Your task to perform on an android device: stop showing notifications on the lock screen Image 0: 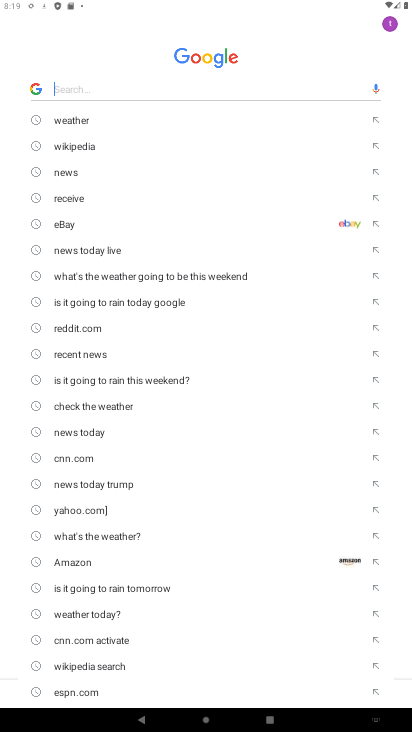
Step 0: press home button
Your task to perform on an android device: stop showing notifications on the lock screen Image 1: 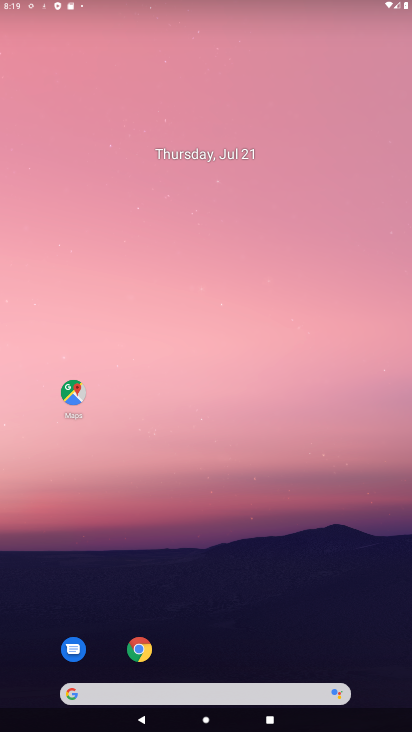
Step 1: drag from (205, 650) to (242, 114)
Your task to perform on an android device: stop showing notifications on the lock screen Image 2: 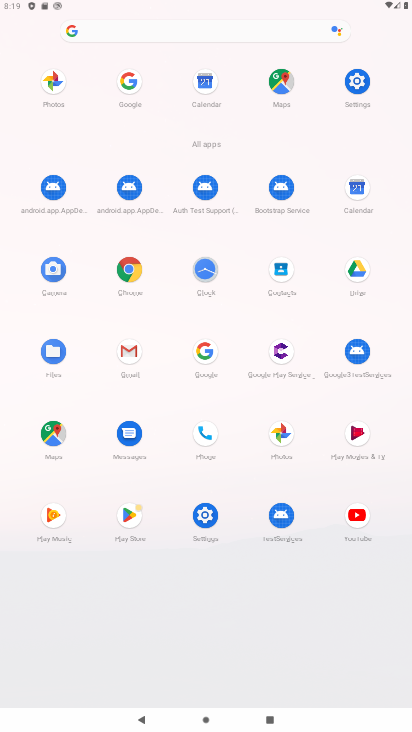
Step 2: click (357, 76)
Your task to perform on an android device: stop showing notifications on the lock screen Image 3: 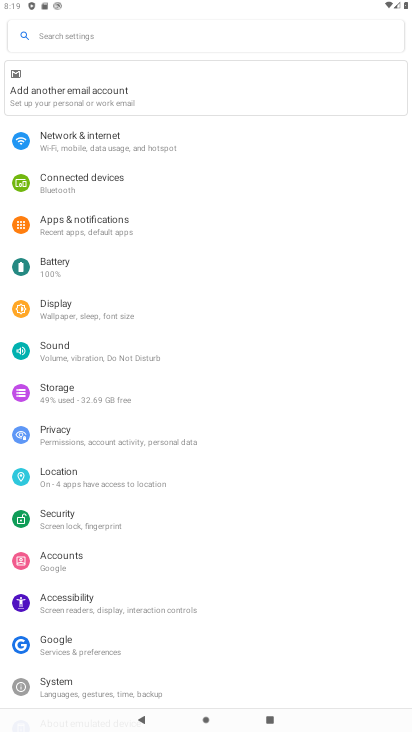
Step 3: click (90, 218)
Your task to perform on an android device: stop showing notifications on the lock screen Image 4: 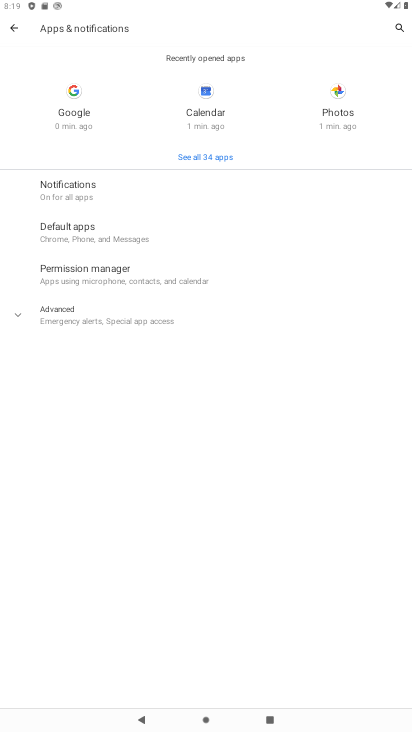
Step 4: click (82, 182)
Your task to perform on an android device: stop showing notifications on the lock screen Image 5: 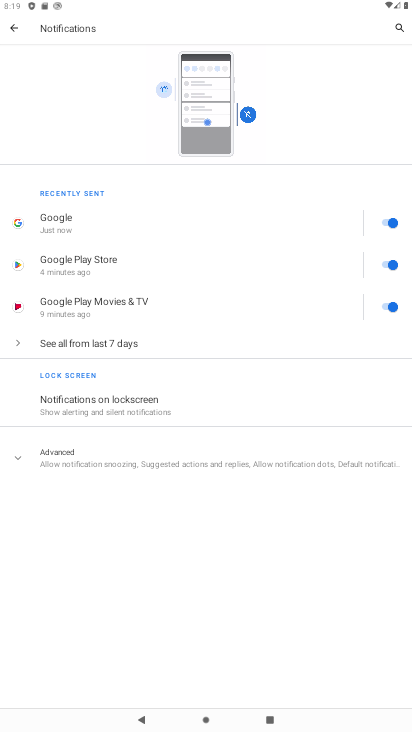
Step 5: click (119, 406)
Your task to perform on an android device: stop showing notifications on the lock screen Image 6: 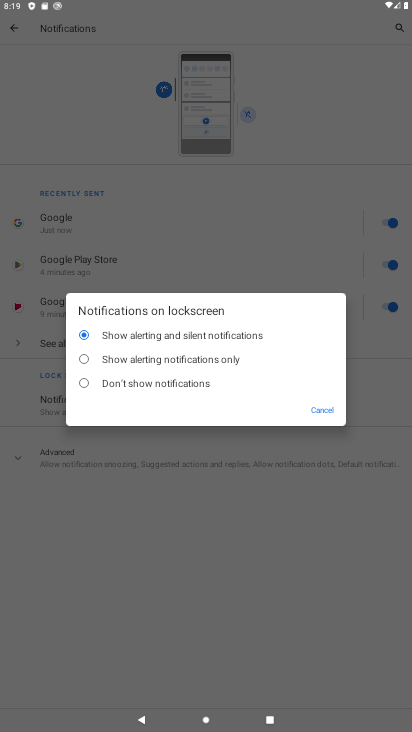
Step 6: click (75, 384)
Your task to perform on an android device: stop showing notifications on the lock screen Image 7: 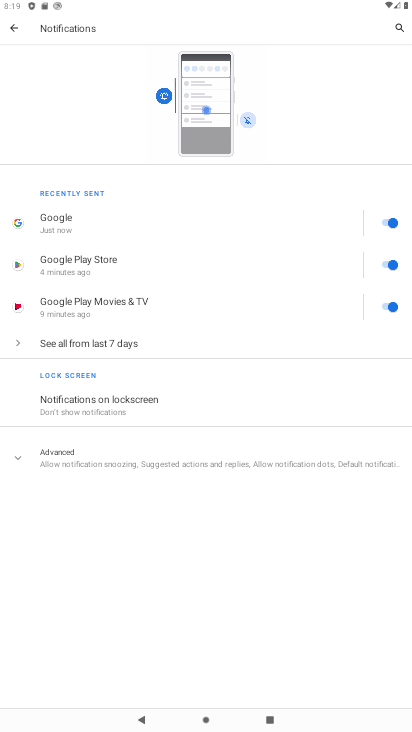
Step 7: task complete